Your task to perform on an android device: Open maps Image 0: 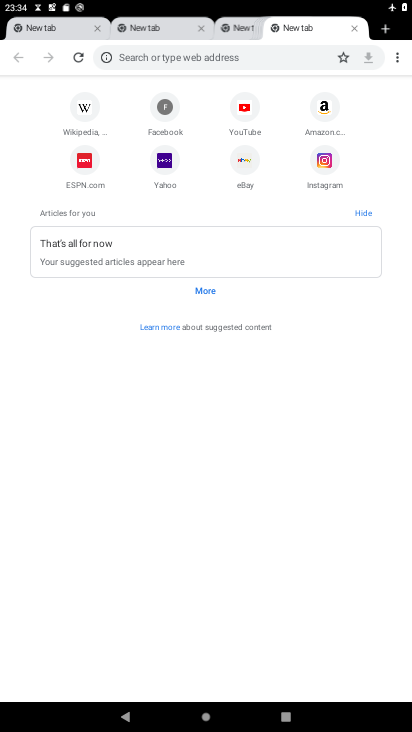
Step 0: press home button
Your task to perform on an android device: Open maps Image 1: 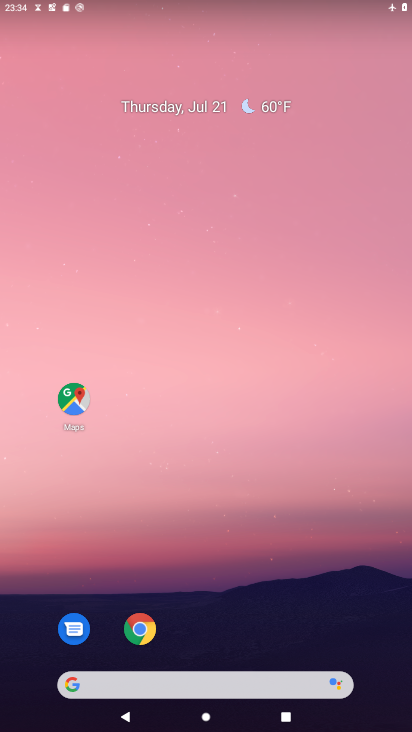
Step 1: click (65, 411)
Your task to perform on an android device: Open maps Image 2: 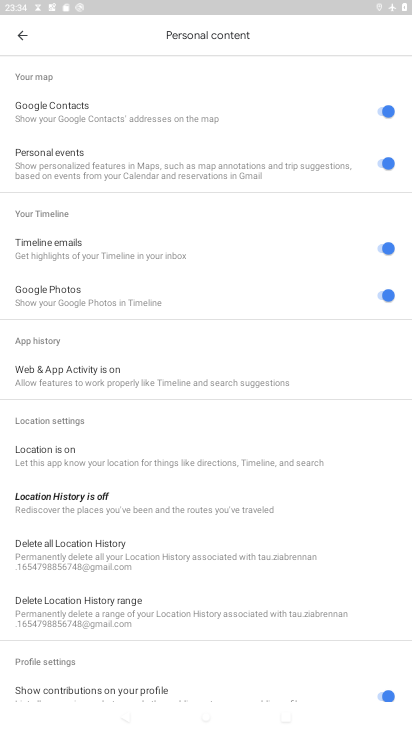
Step 2: click (24, 27)
Your task to perform on an android device: Open maps Image 3: 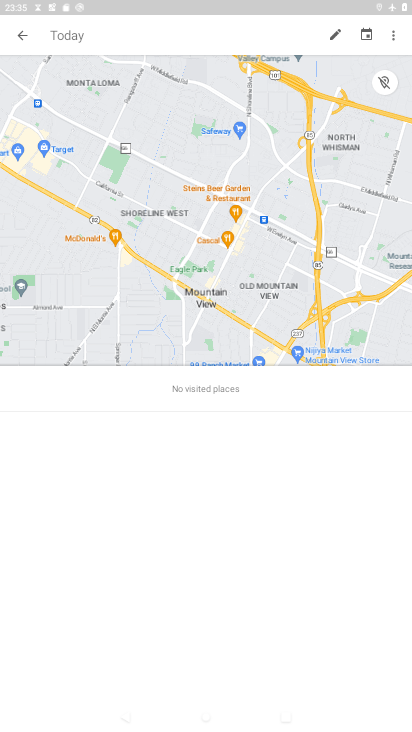
Step 3: click (28, 25)
Your task to perform on an android device: Open maps Image 4: 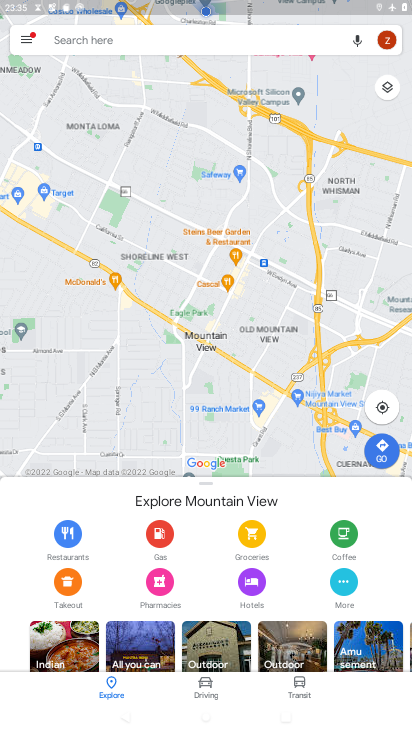
Step 4: task complete